Your task to perform on an android device: What's on my calendar tomorrow? Image 0: 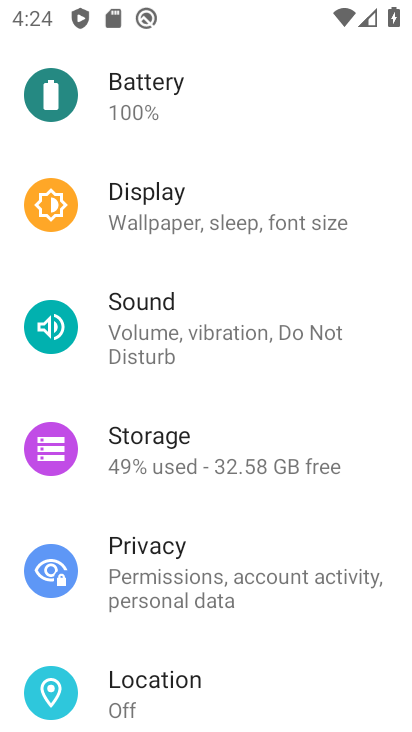
Step 0: press home button
Your task to perform on an android device: What's on my calendar tomorrow? Image 1: 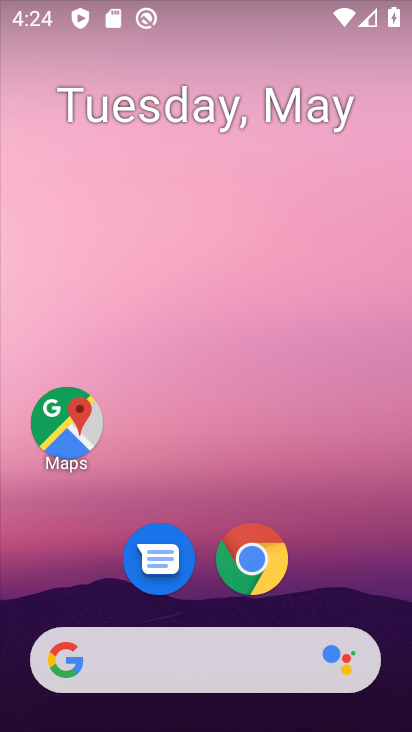
Step 1: drag from (324, 566) to (350, 22)
Your task to perform on an android device: What's on my calendar tomorrow? Image 2: 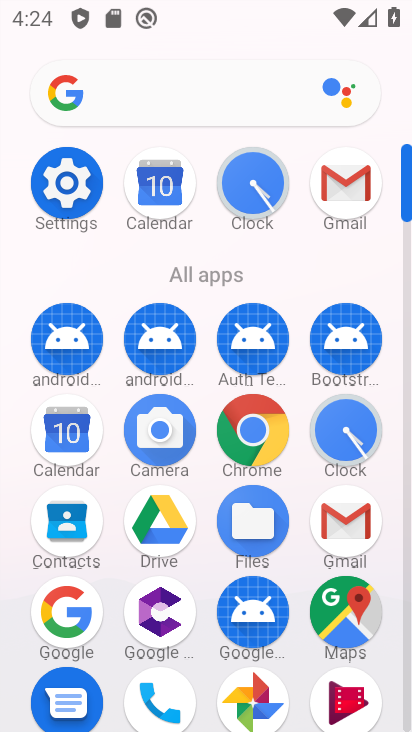
Step 2: click (81, 415)
Your task to perform on an android device: What's on my calendar tomorrow? Image 3: 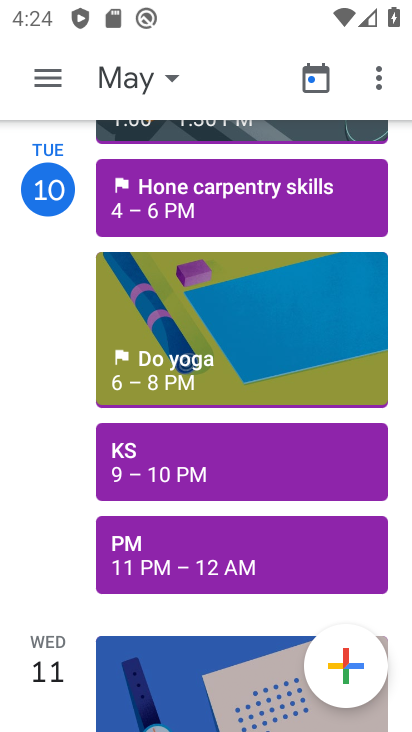
Step 3: click (62, 85)
Your task to perform on an android device: What's on my calendar tomorrow? Image 4: 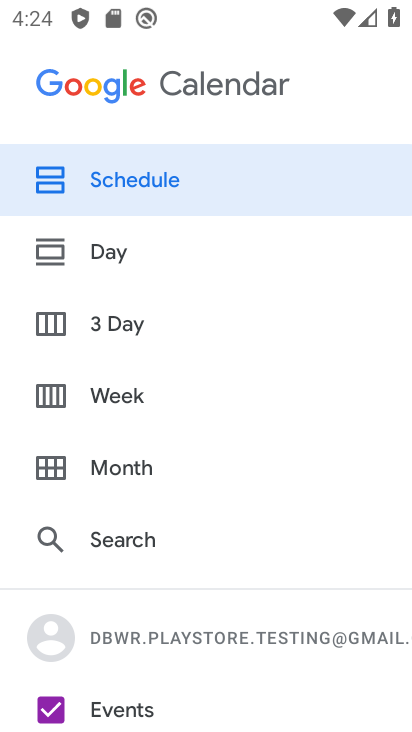
Step 4: click (140, 259)
Your task to perform on an android device: What's on my calendar tomorrow? Image 5: 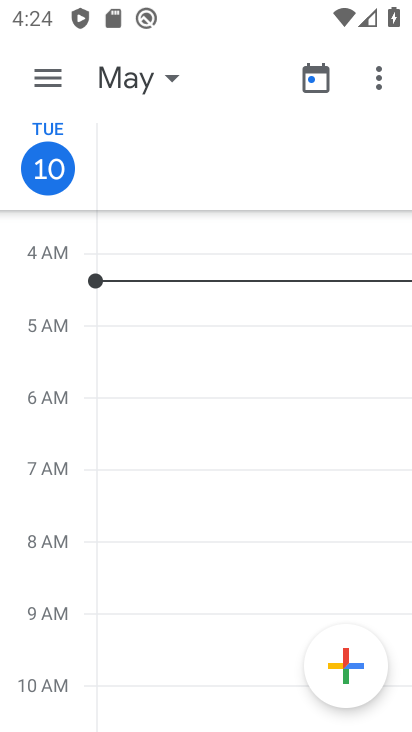
Step 5: click (149, 74)
Your task to perform on an android device: What's on my calendar tomorrow? Image 6: 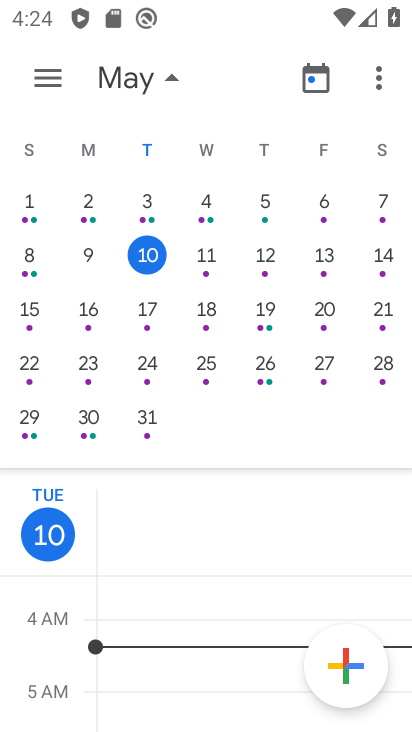
Step 6: click (202, 251)
Your task to perform on an android device: What's on my calendar tomorrow? Image 7: 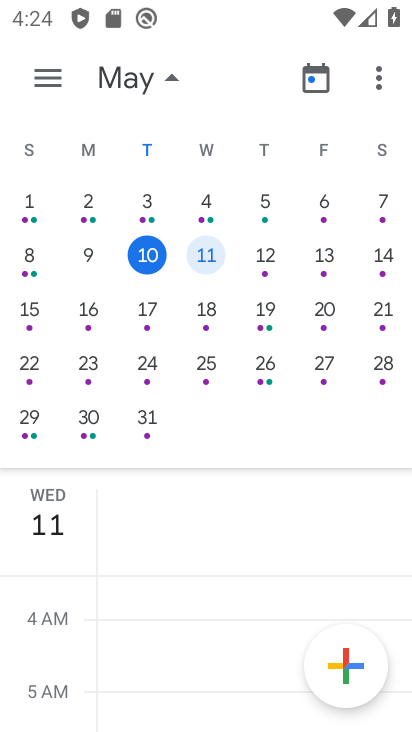
Step 7: task complete